Your task to perform on an android device: turn on airplane mode Image 0: 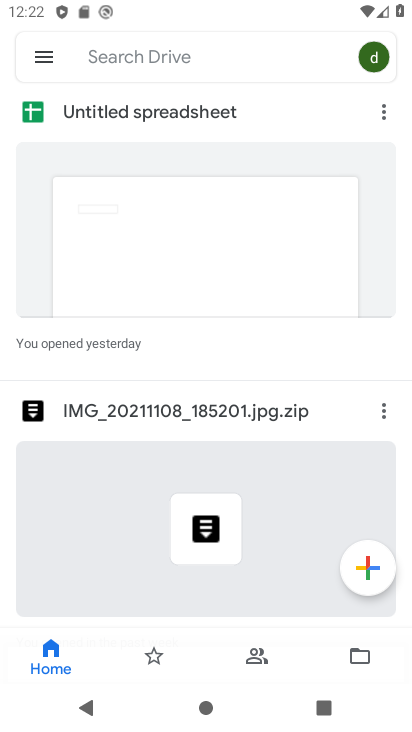
Step 0: press home button
Your task to perform on an android device: turn on airplane mode Image 1: 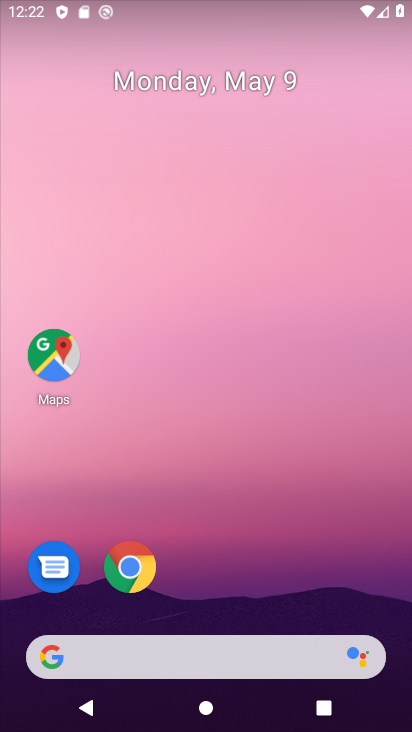
Step 1: drag from (214, 606) to (350, 7)
Your task to perform on an android device: turn on airplane mode Image 2: 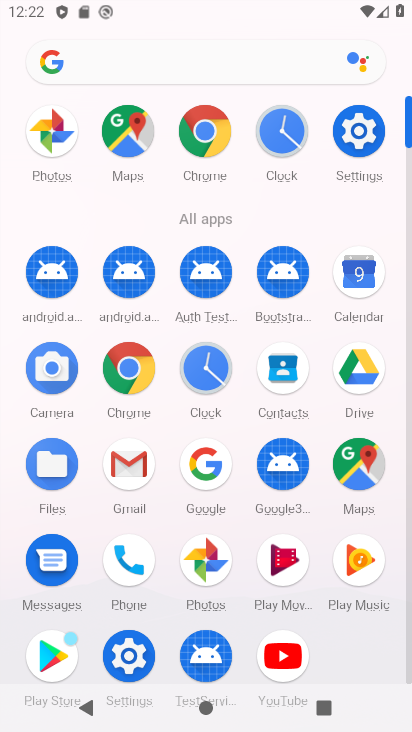
Step 2: click (349, 160)
Your task to perform on an android device: turn on airplane mode Image 3: 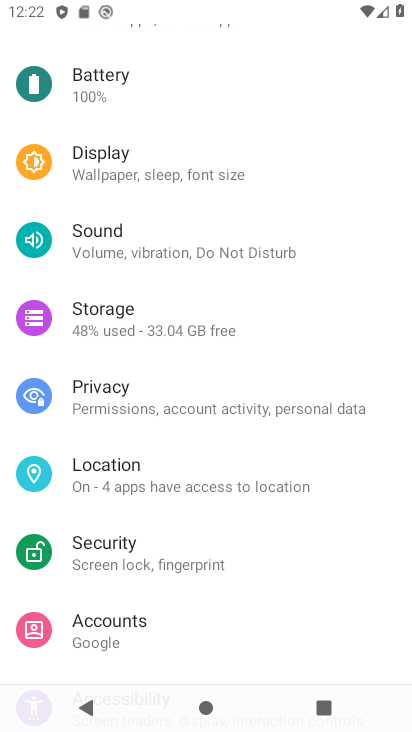
Step 3: drag from (356, 122) to (319, 622)
Your task to perform on an android device: turn on airplane mode Image 4: 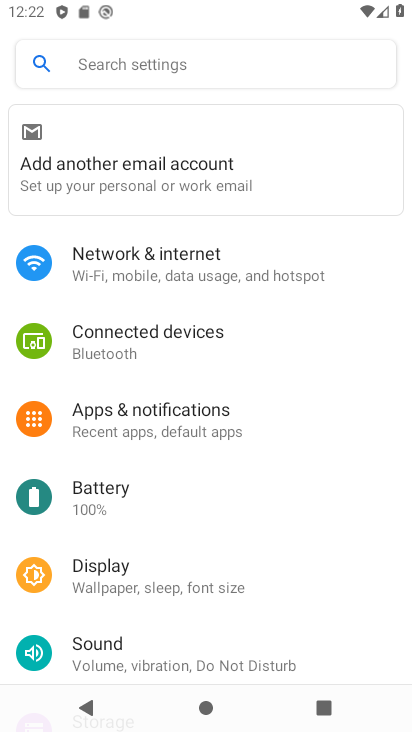
Step 4: click (207, 280)
Your task to perform on an android device: turn on airplane mode Image 5: 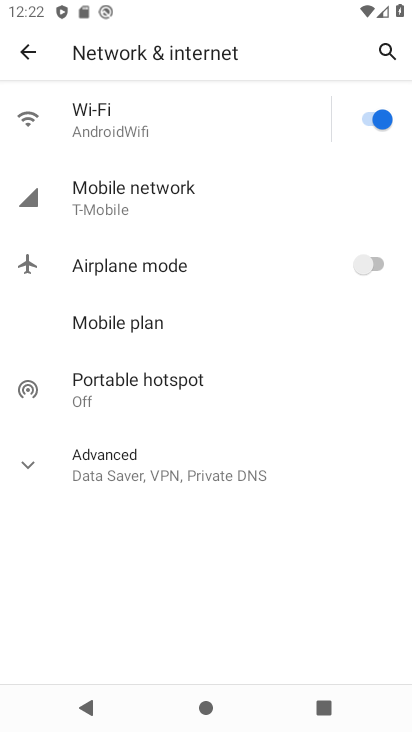
Step 5: click (296, 273)
Your task to perform on an android device: turn on airplane mode Image 6: 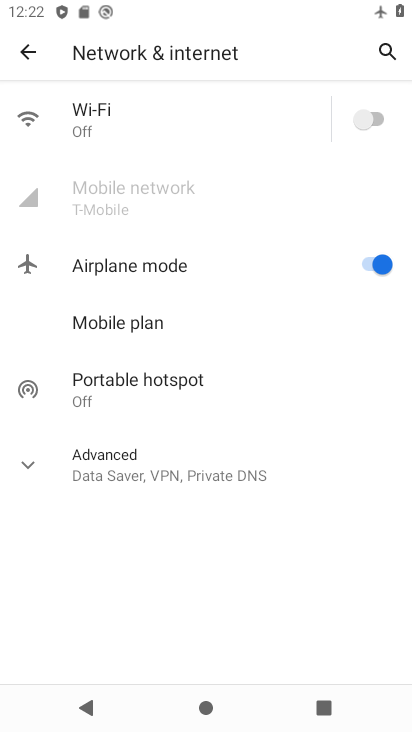
Step 6: task complete